Your task to perform on an android device: Go to settings Image 0: 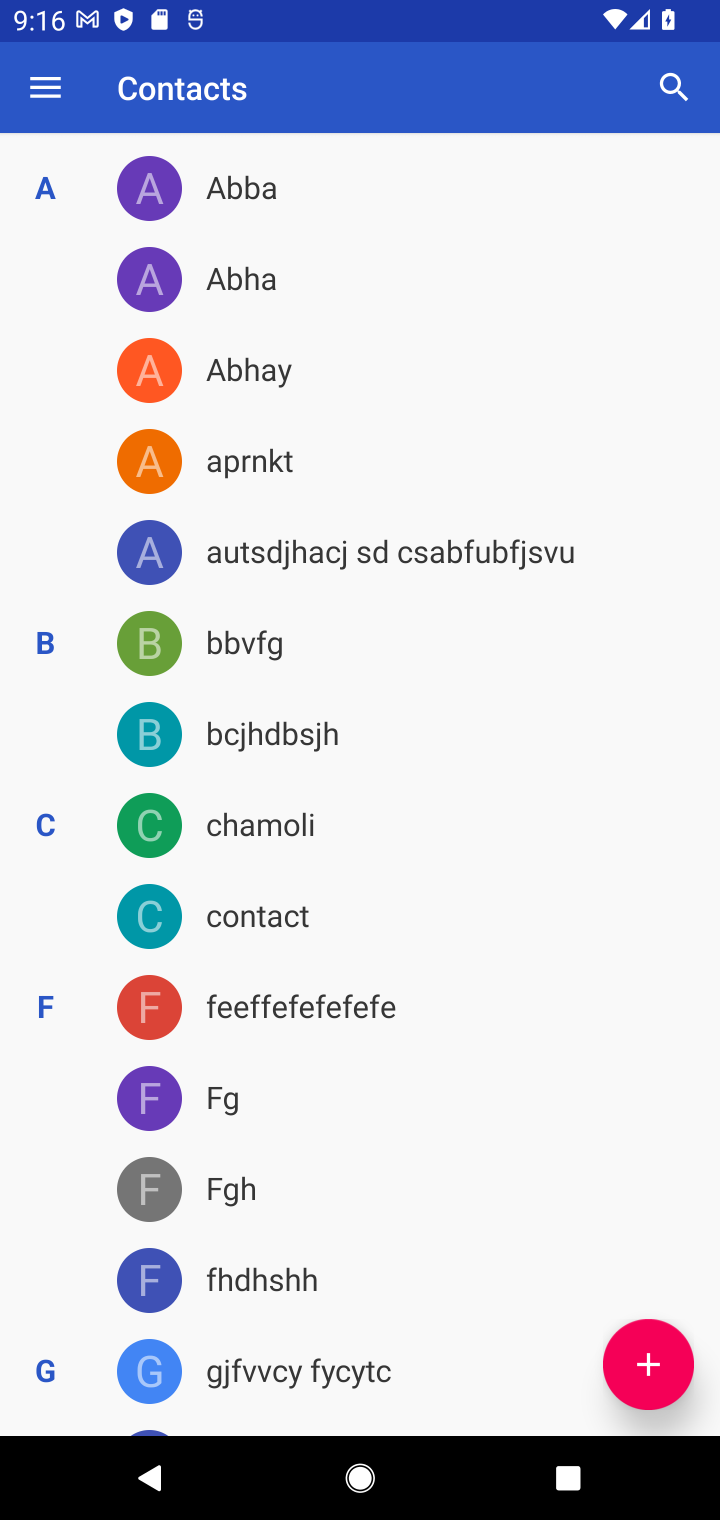
Step 0: press home button
Your task to perform on an android device: Go to settings Image 1: 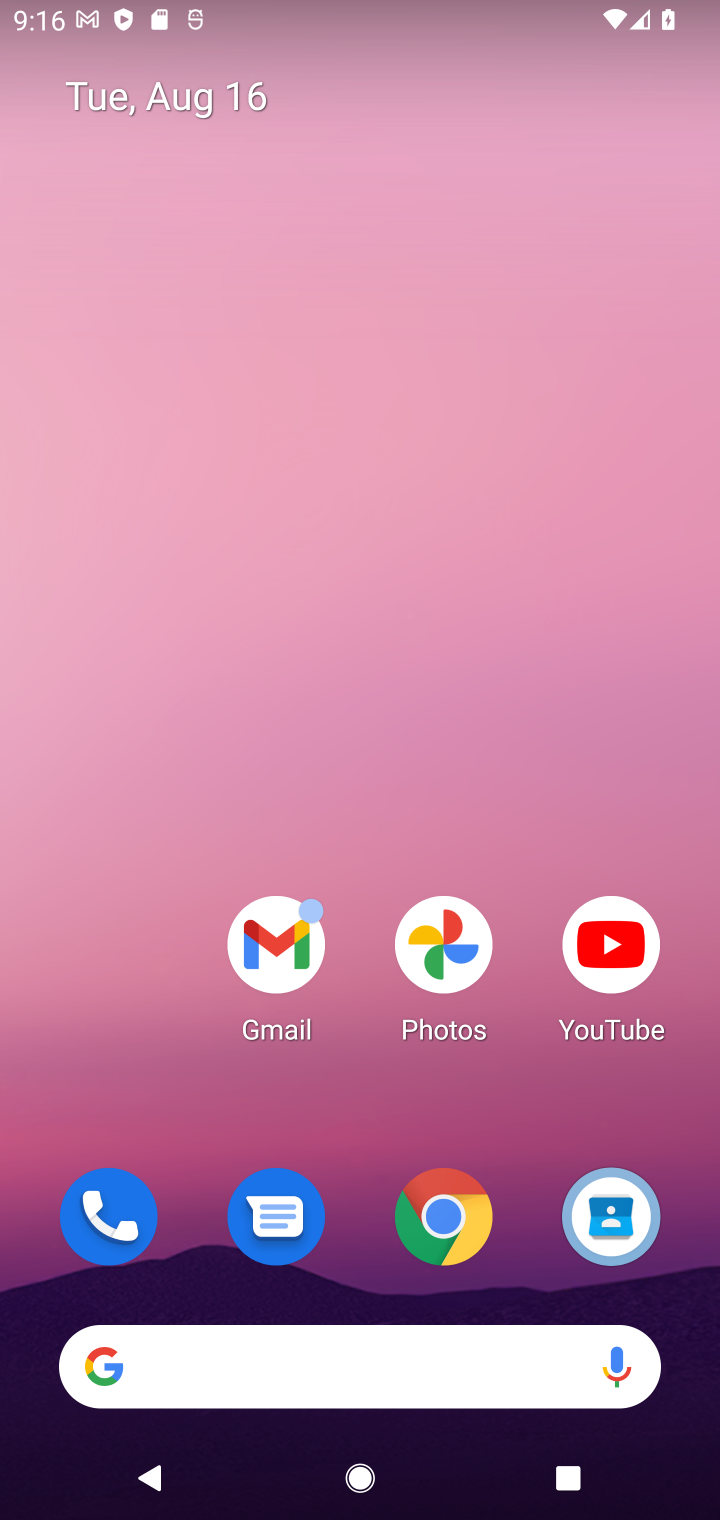
Step 1: drag from (297, 920) to (247, 232)
Your task to perform on an android device: Go to settings Image 2: 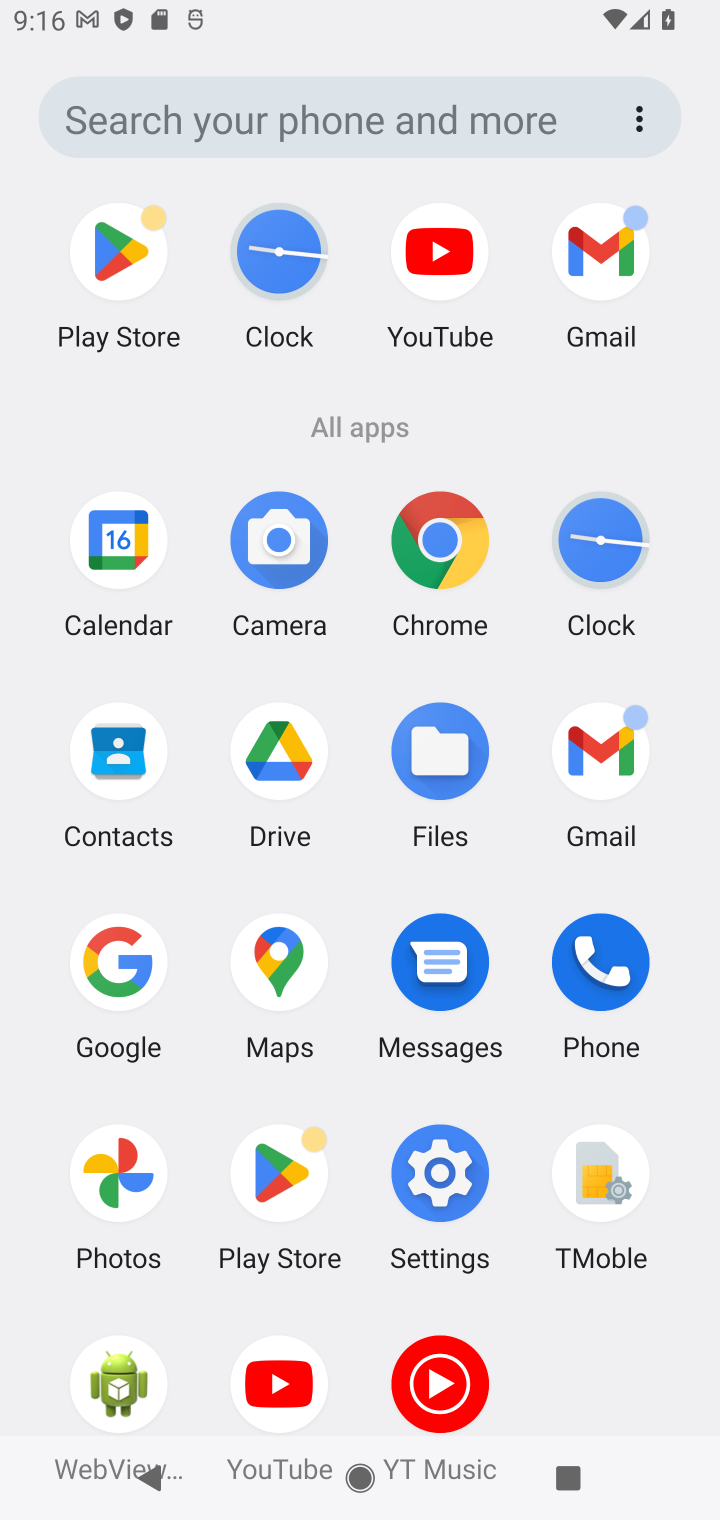
Step 2: click (444, 1147)
Your task to perform on an android device: Go to settings Image 3: 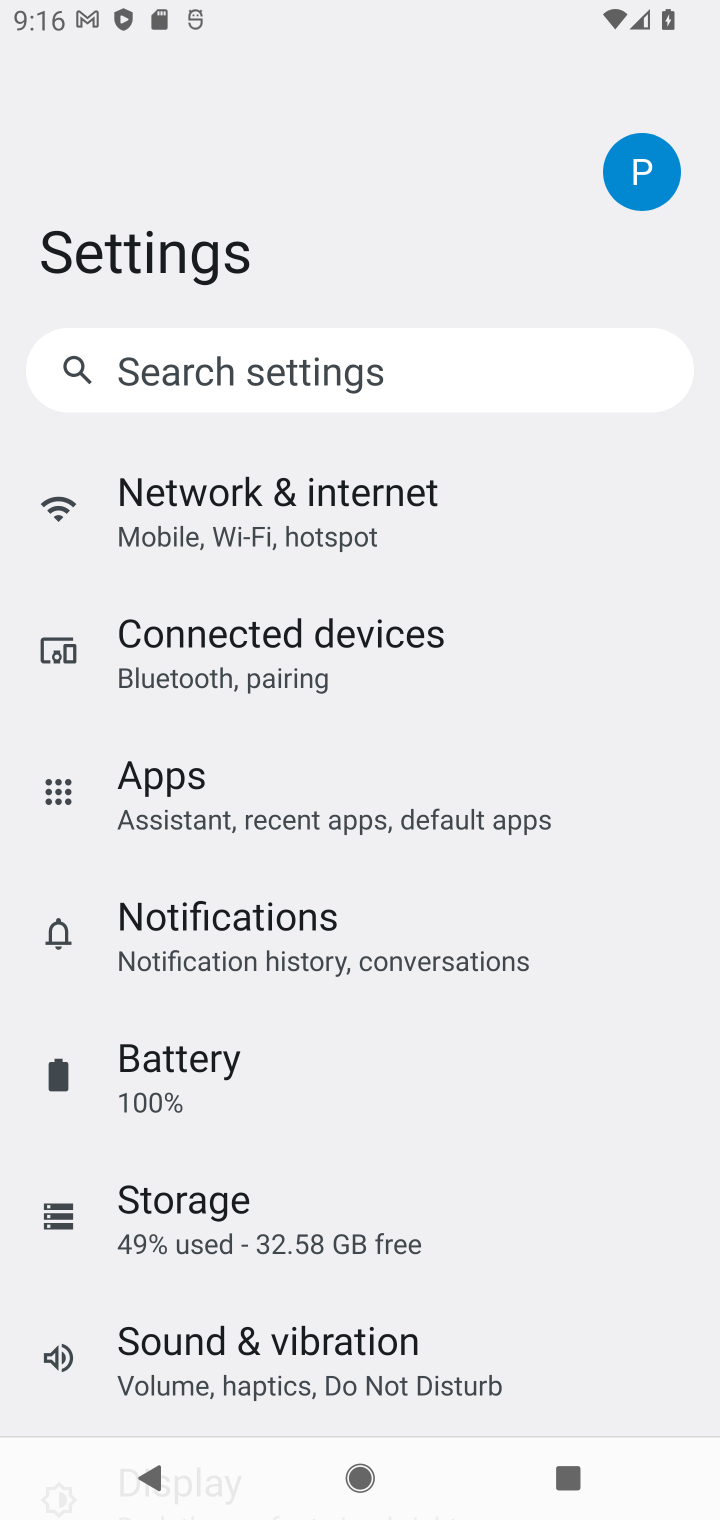
Step 3: task complete